Your task to perform on an android device: Open location settings Image 0: 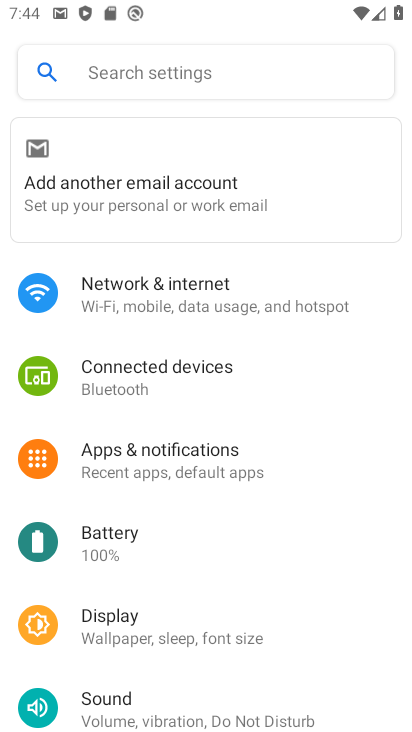
Step 0: press home button
Your task to perform on an android device: Open location settings Image 1: 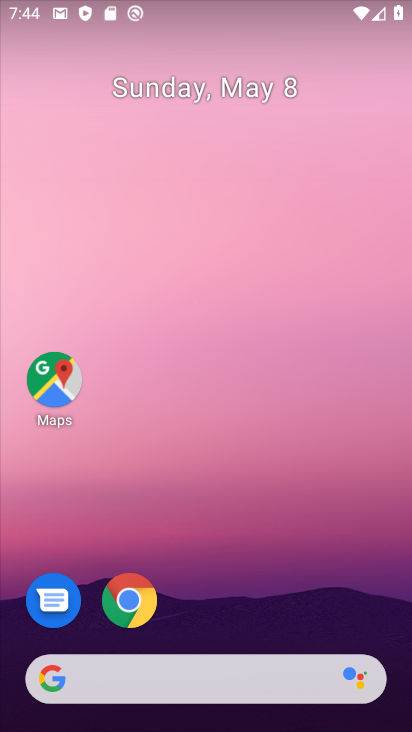
Step 1: drag from (225, 718) to (348, 97)
Your task to perform on an android device: Open location settings Image 2: 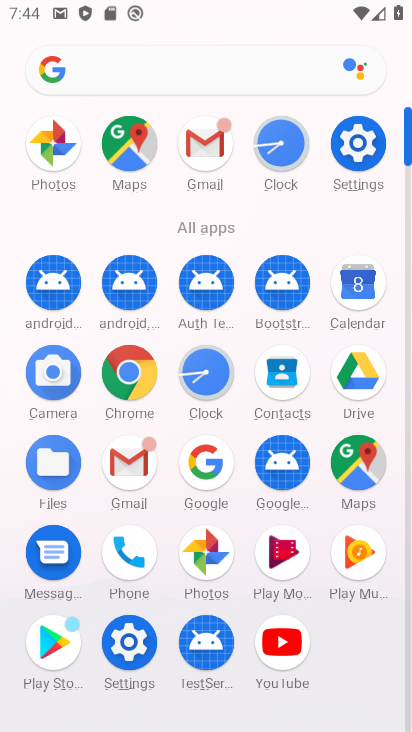
Step 2: click (366, 177)
Your task to perform on an android device: Open location settings Image 3: 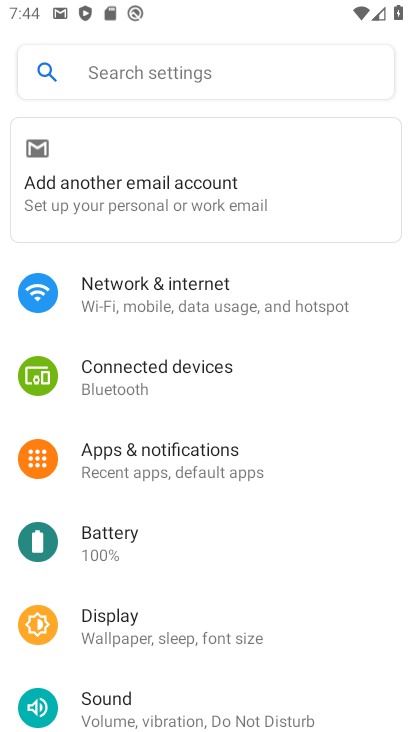
Step 3: drag from (212, 491) to (225, 313)
Your task to perform on an android device: Open location settings Image 4: 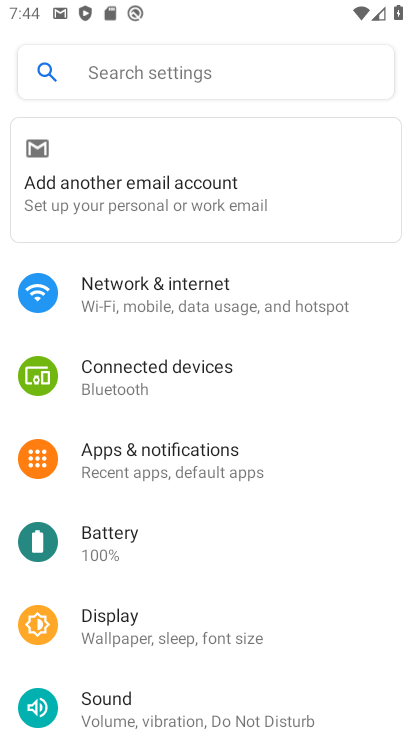
Step 4: drag from (204, 632) to (209, 391)
Your task to perform on an android device: Open location settings Image 5: 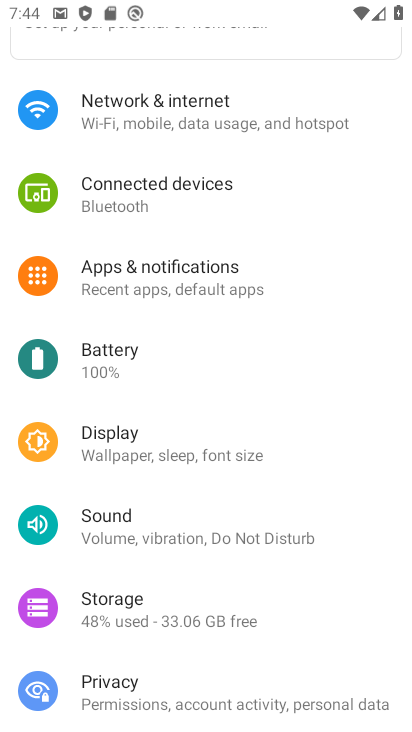
Step 5: drag from (179, 644) to (193, 0)
Your task to perform on an android device: Open location settings Image 6: 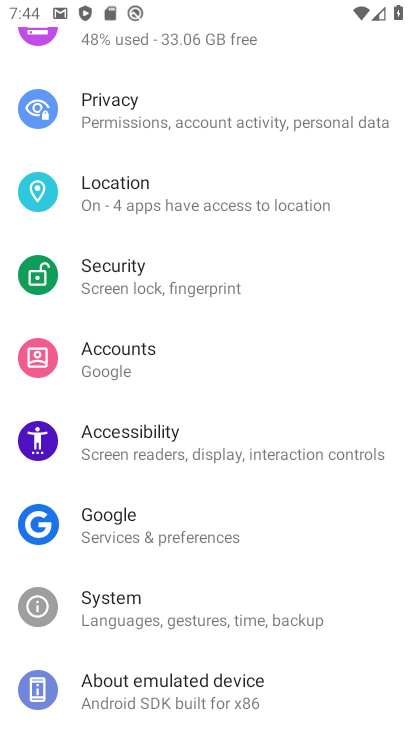
Step 6: drag from (218, 600) to (217, 423)
Your task to perform on an android device: Open location settings Image 7: 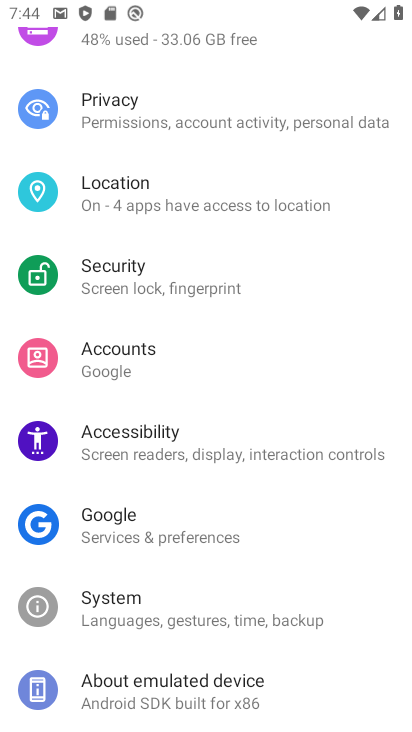
Step 7: click (202, 213)
Your task to perform on an android device: Open location settings Image 8: 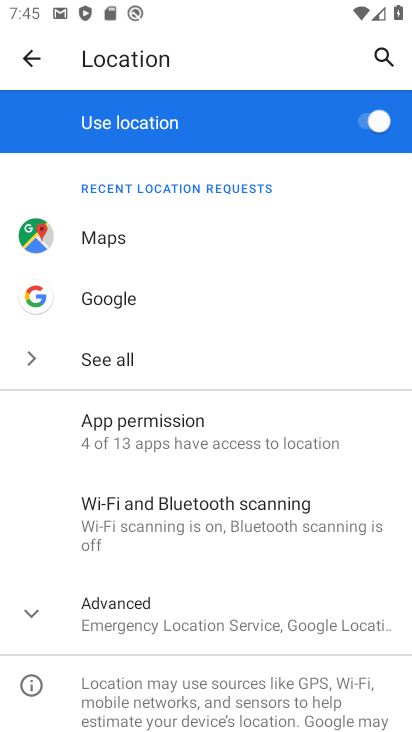
Step 8: click (202, 213)
Your task to perform on an android device: Open location settings Image 9: 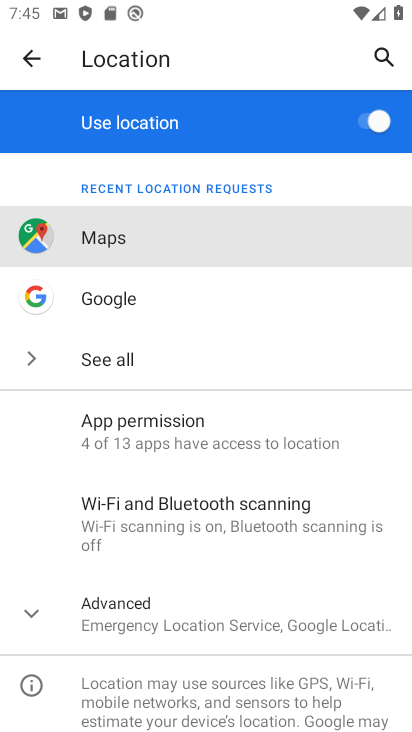
Step 9: task complete